Your task to perform on an android device: Go to Maps Image 0: 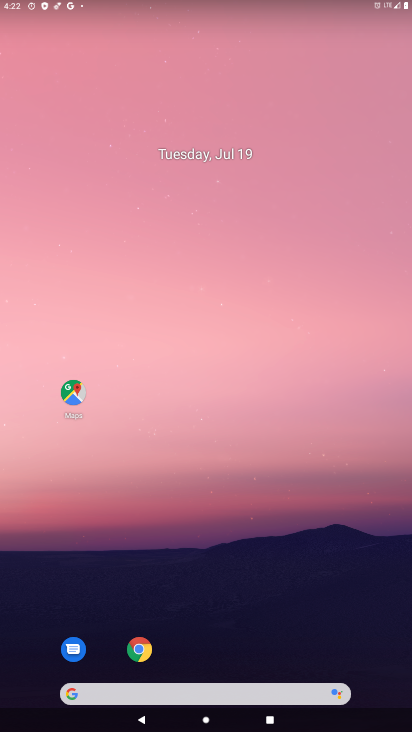
Step 0: drag from (246, 646) to (175, 64)
Your task to perform on an android device: Go to Maps Image 1: 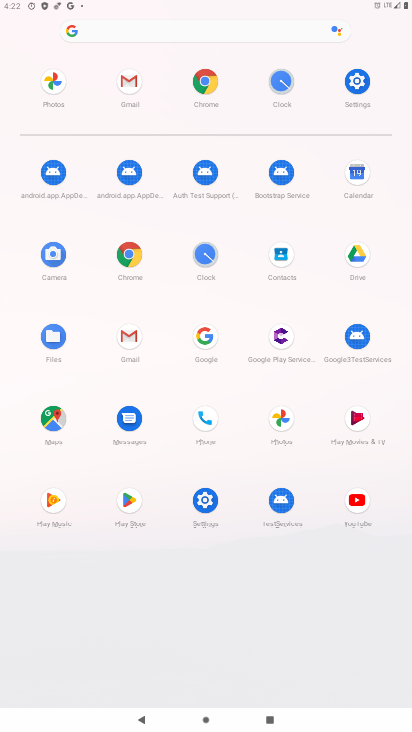
Step 1: click (54, 427)
Your task to perform on an android device: Go to Maps Image 2: 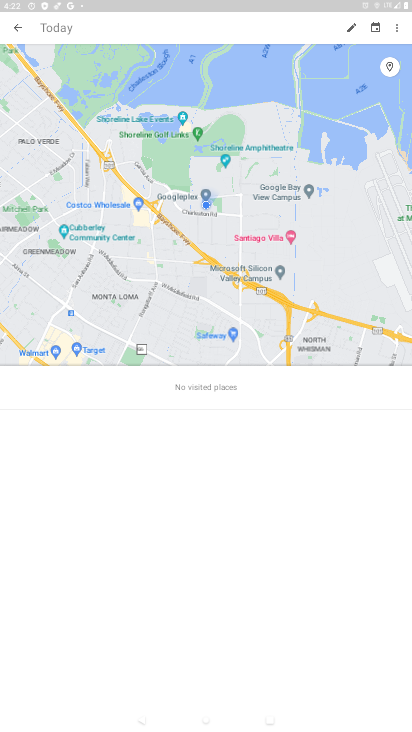
Step 2: task complete